Your task to perform on an android device: Open the calendar app, open the side menu, and click the "Day" option Image 0: 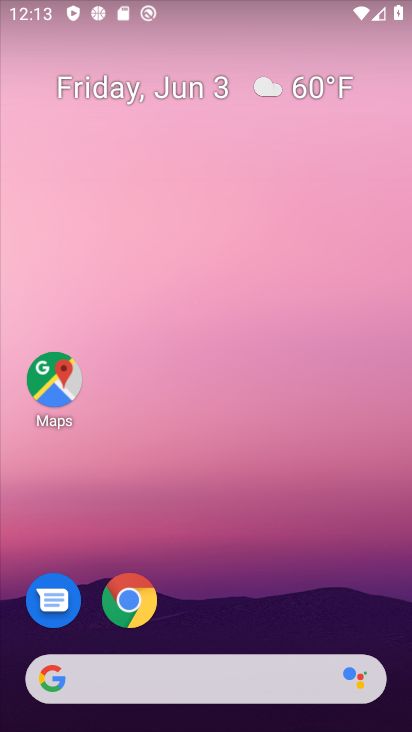
Step 0: drag from (283, 527) to (284, 155)
Your task to perform on an android device: Open the calendar app, open the side menu, and click the "Day" option Image 1: 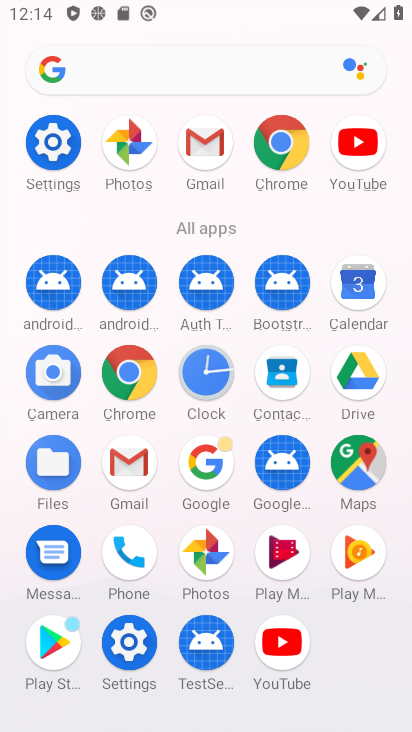
Step 1: click (353, 286)
Your task to perform on an android device: Open the calendar app, open the side menu, and click the "Day" option Image 2: 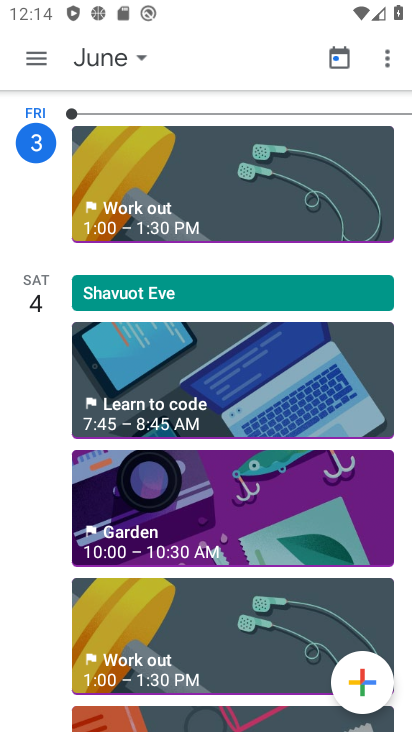
Step 2: click (29, 65)
Your task to perform on an android device: Open the calendar app, open the side menu, and click the "Day" option Image 3: 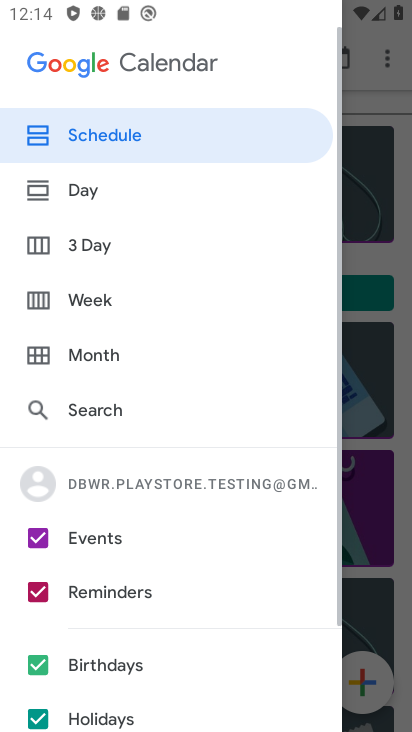
Step 3: click (86, 198)
Your task to perform on an android device: Open the calendar app, open the side menu, and click the "Day" option Image 4: 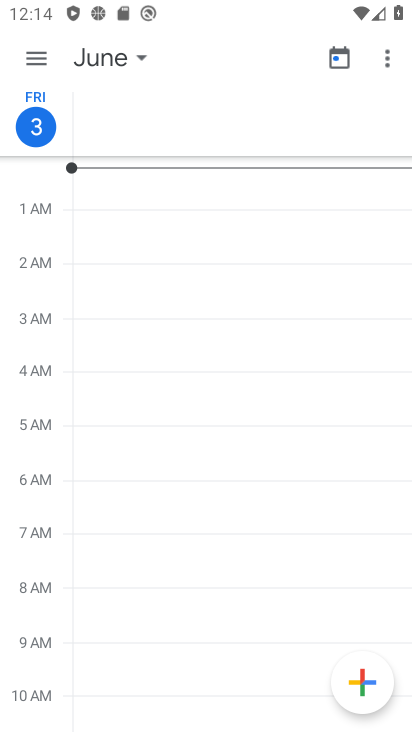
Step 4: task complete